Your task to perform on an android device: View the shopping cart on bestbuy.com. Add "panasonic triple a" to the cart on bestbuy.com Image 0: 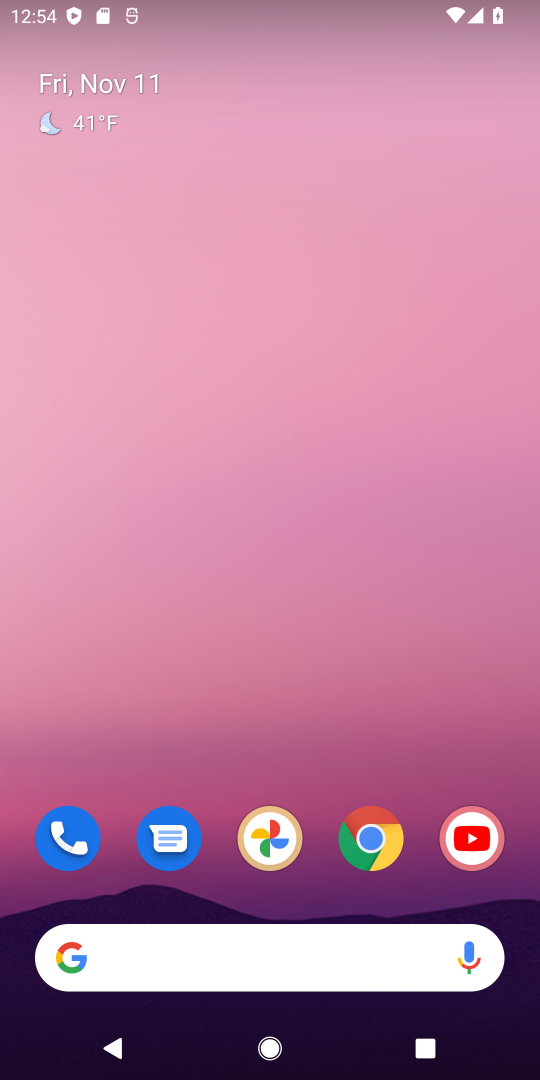
Step 0: click (379, 847)
Your task to perform on an android device: View the shopping cart on bestbuy.com. Add "panasonic triple a" to the cart on bestbuy.com Image 1: 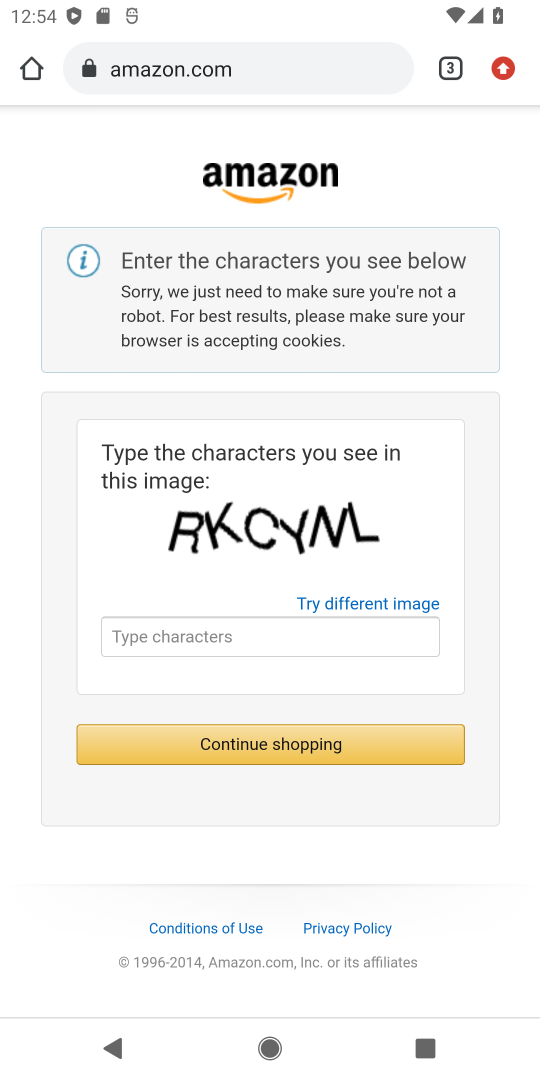
Step 1: click (186, 57)
Your task to perform on an android device: View the shopping cart on bestbuy.com. Add "panasonic triple a" to the cart on bestbuy.com Image 2: 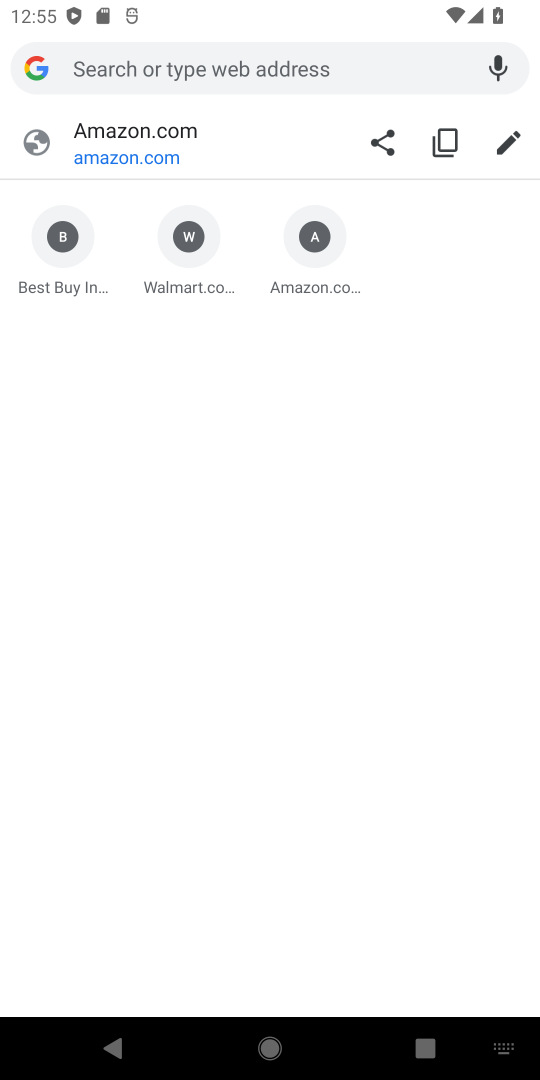
Step 2: type "panasonic triple a" to the cart on bestbuy.com"
Your task to perform on an android device: View the shopping cart on bestbuy.com. Add "panasonic triple a" to the cart on bestbuy.com Image 3: 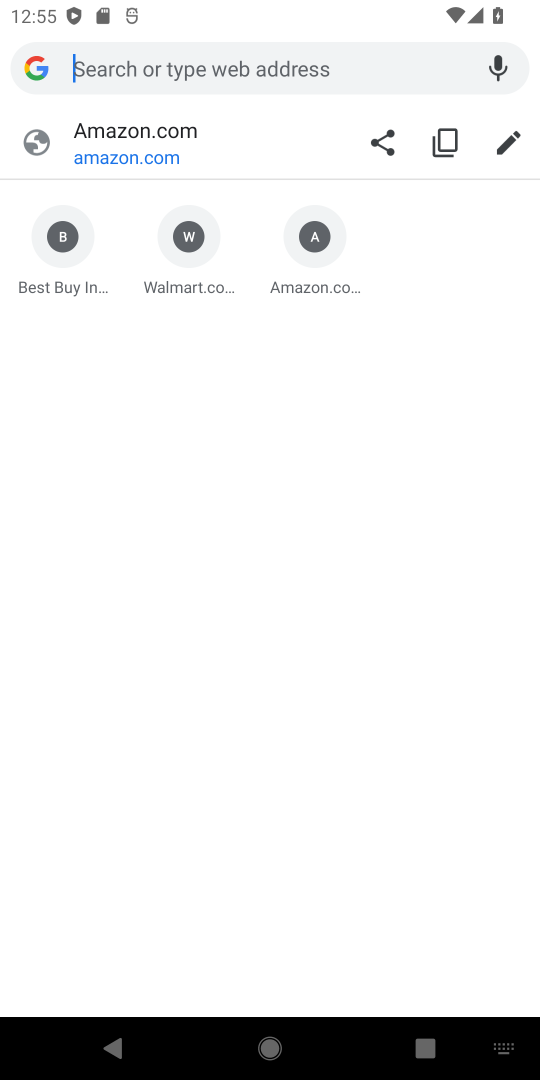
Step 3: type "panasonic triple a" to the cart on bestbuy.com"
Your task to perform on an android device: View the shopping cart on bestbuy.com. Add "panasonic triple a" to the cart on bestbuy.com Image 4: 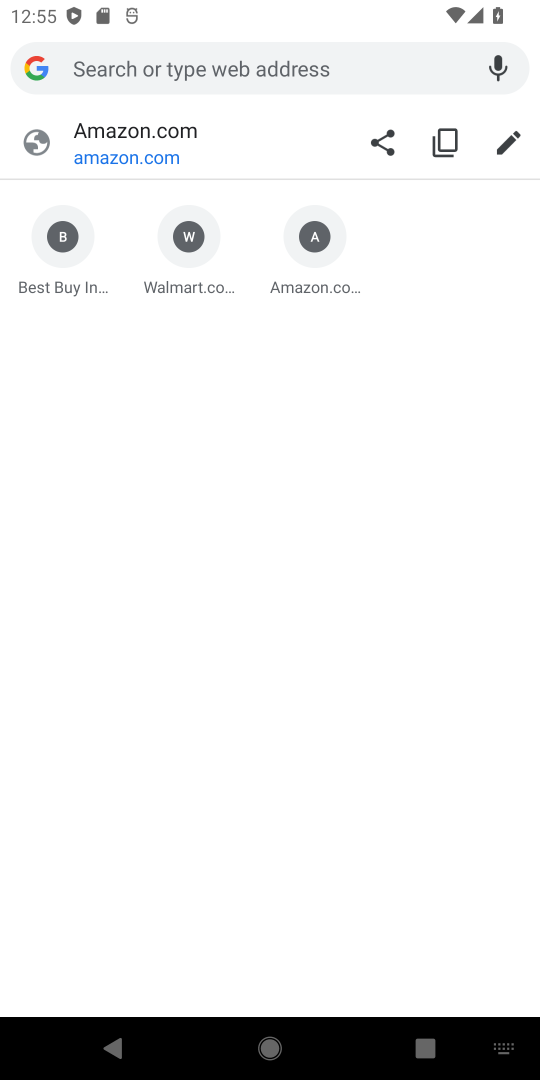
Step 4: click (161, 67)
Your task to perform on an android device: View the shopping cart on bestbuy.com. Add "panasonic triple a" to the cart on bestbuy.com Image 5: 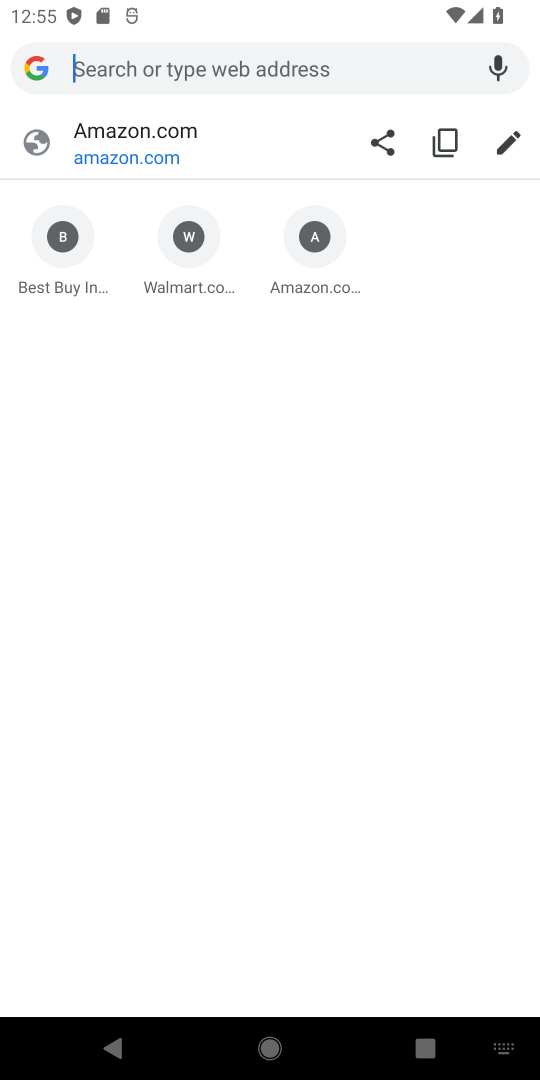
Step 5: type "panasonic triple a" to the cart on bestbuy.com"
Your task to perform on an android device: View the shopping cart on bestbuy.com. Add "panasonic triple a" to the cart on bestbuy.com Image 6: 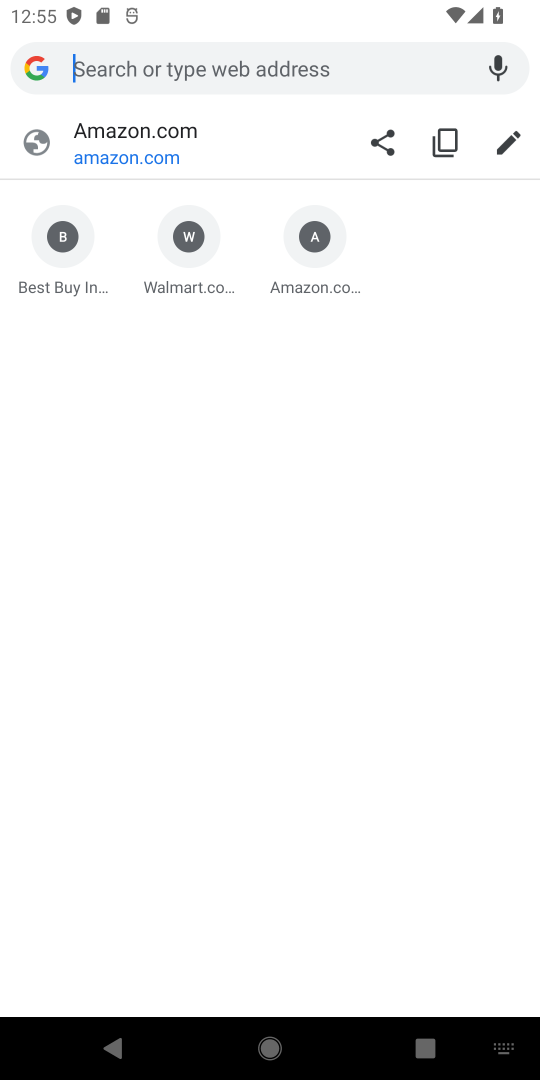
Step 6: press home button
Your task to perform on an android device: View the shopping cart on bestbuy.com. Add "panasonic triple a" to the cart on bestbuy.com Image 7: 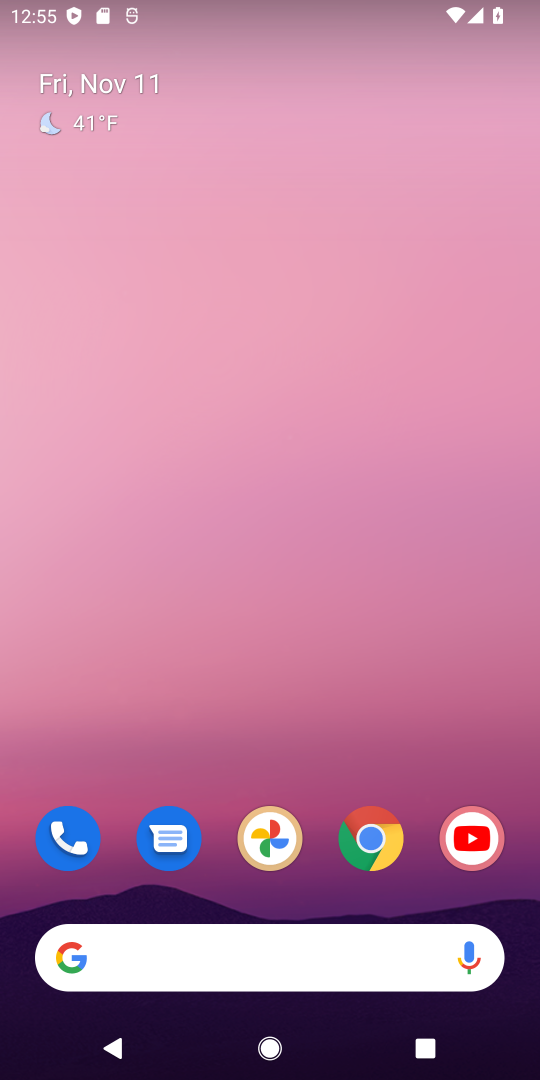
Step 7: click (321, 971)
Your task to perform on an android device: View the shopping cart on bestbuy.com. Add "panasonic triple a" to the cart on bestbuy.com Image 8: 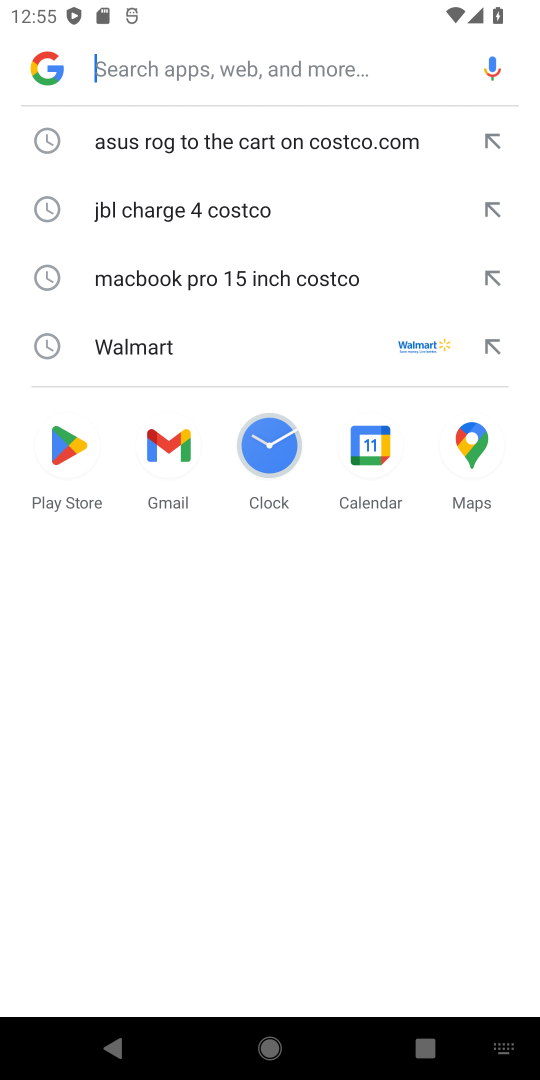
Step 8: type "panasonic triple a" to the cart on bestbuy.com"
Your task to perform on an android device: View the shopping cart on bestbuy.com. Add "panasonic triple a" to the cart on bestbuy.com Image 9: 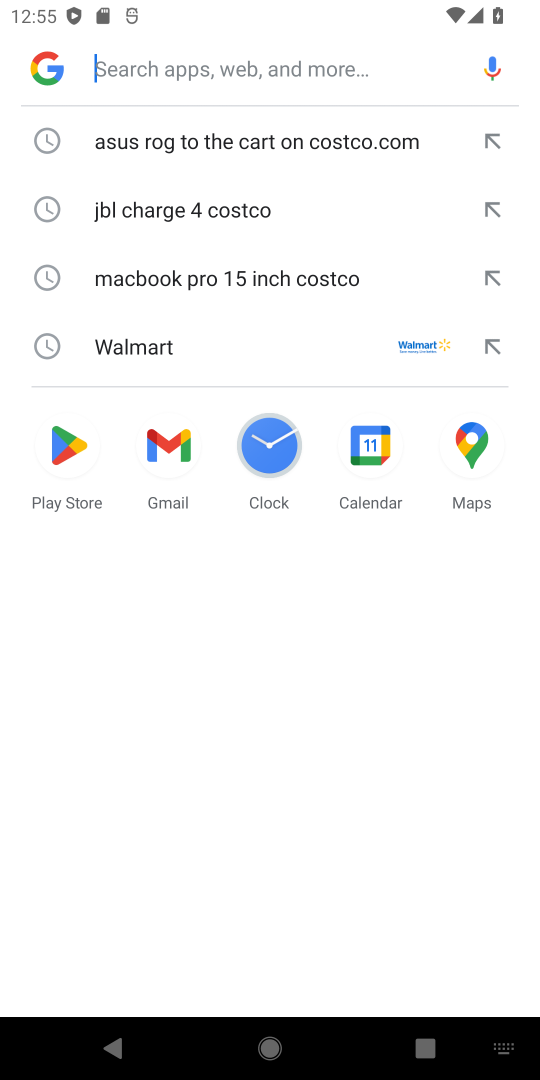
Step 9: press enter
Your task to perform on an android device: View the shopping cart on bestbuy.com. Add "panasonic triple a" to the cart on bestbuy.com Image 10: 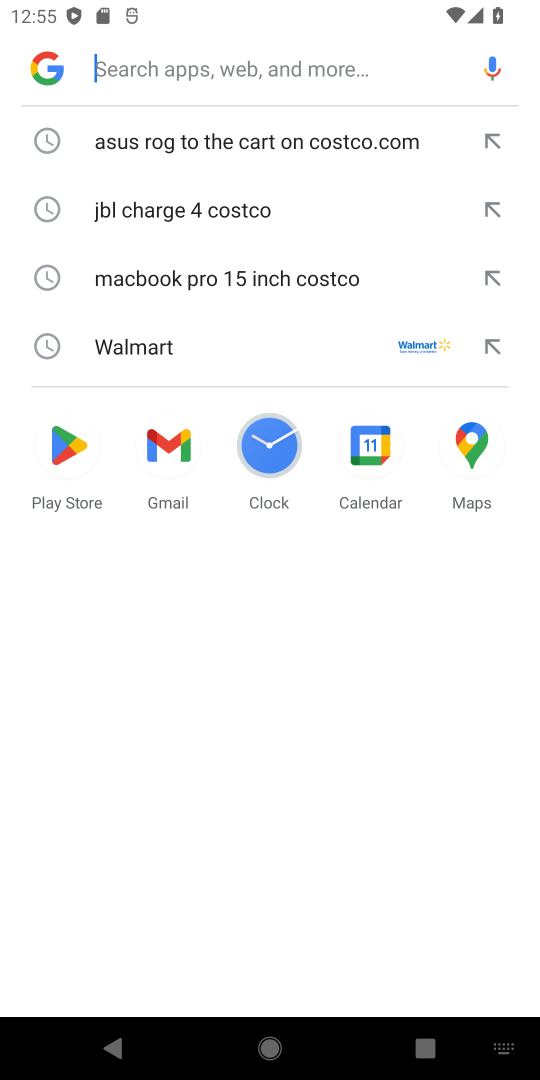
Step 10: type "panasonic triple a" to the cart on bestbuy.com"
Your task to perform on an android device: View the shopping cart on bestbuy.com. Add "panasonic triple a" to the cart on bestbuy.com Image 11: 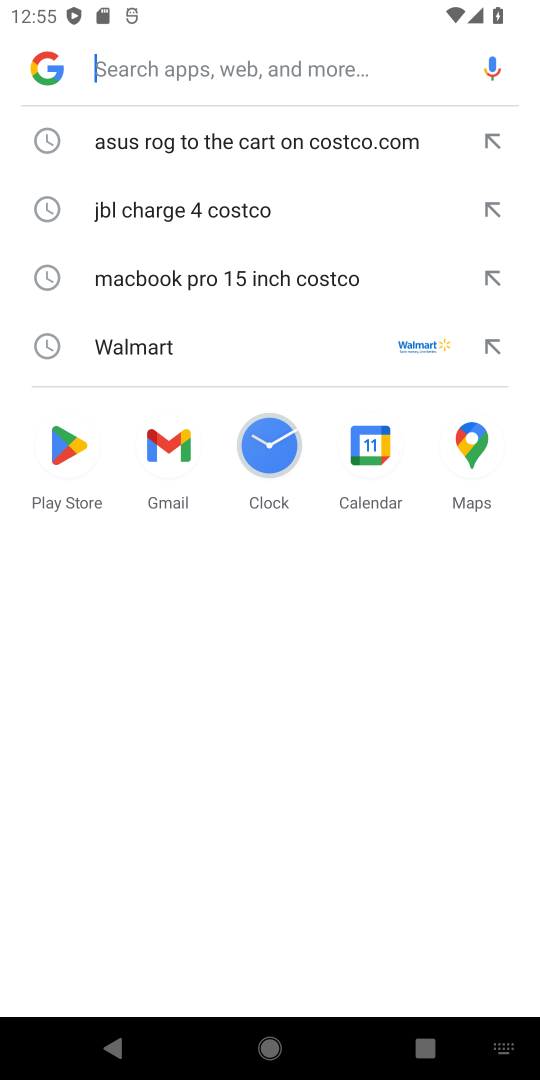
Step 11: task complete